Your task to perform on an android device: open app "Skype" Image 0: 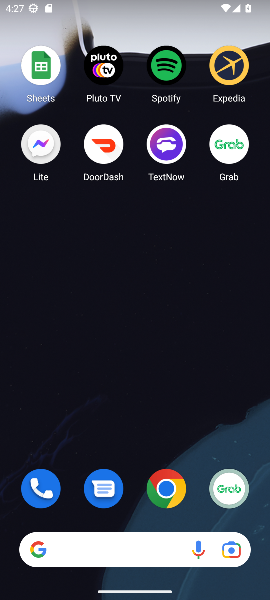
Step 0: drag from (131, 508) to (103, 30)
Your task to perform on an android device: open app "Skype" Image 1: 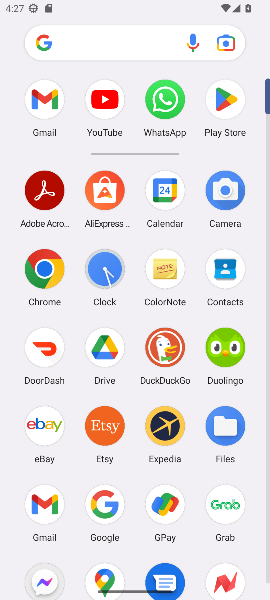
Step 1: click (220, 97)
Your task to perform on an android device: open app "Skype" Image 2: 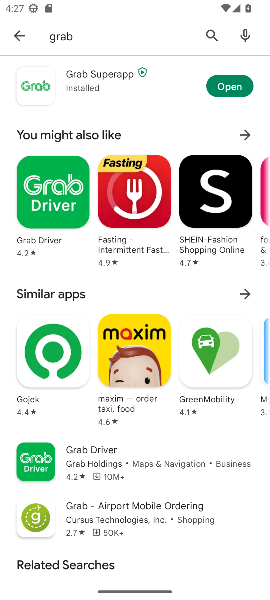
Step 2: click (200, 39)
Your task to perform on an android device: open app "Skype" Image 3: 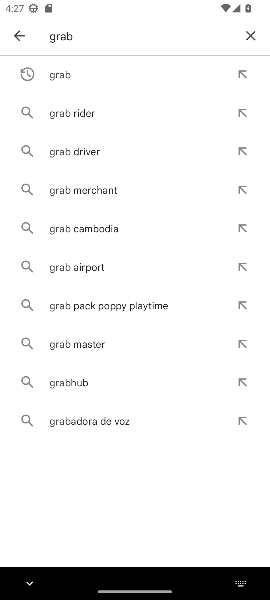
Step 3: click (240, 35)
Your task to perform on an android device: open app "Skype" Image 4: 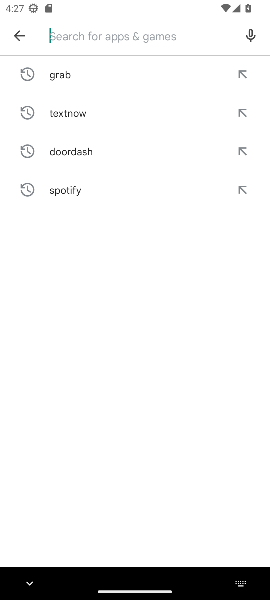
Step 4: type "skype"
Your task to perform on an android device: open app "Skype" Image 5: 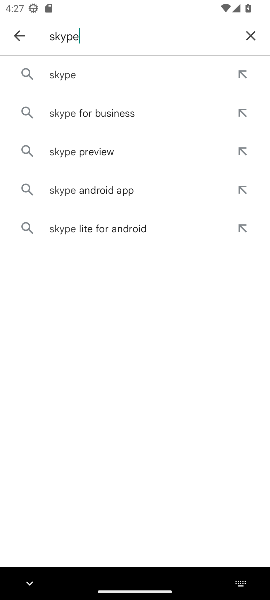
Step 5: click (68, 83)
Your task to perform on an android device: open app "Skype" Image 6: 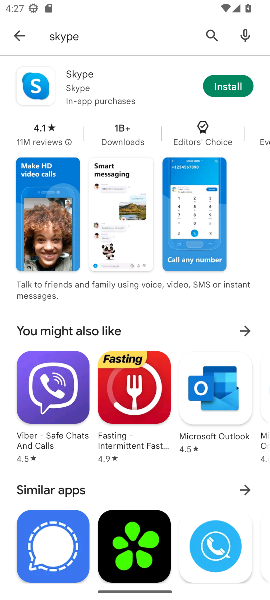
Step 6: click (218, 82)
Your task to perform on an android device: open app "Skype" Image 7: 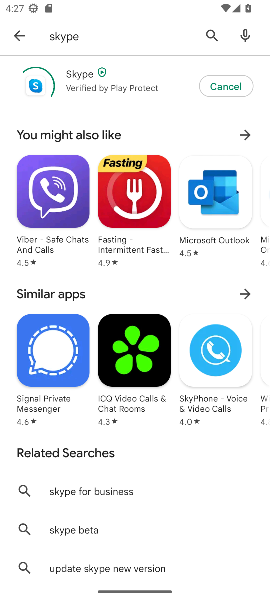
Step 7: task complete